Your task to perform on an android device: clear all cookies in the chrome app Image 0: 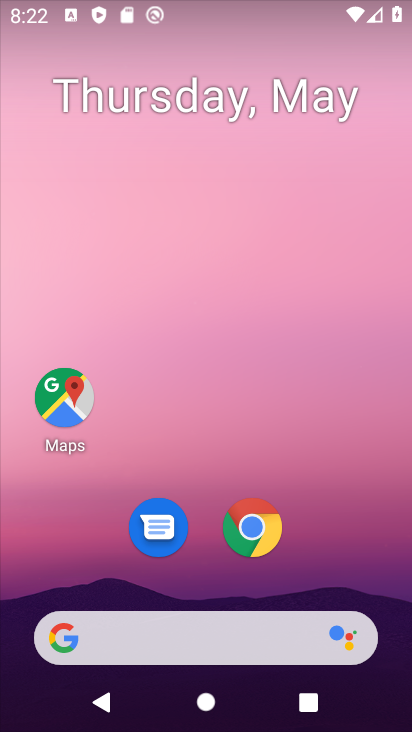
Step 0: press home button
Your task to perform on an android device: clear all cookies in the chrome app Image 1: 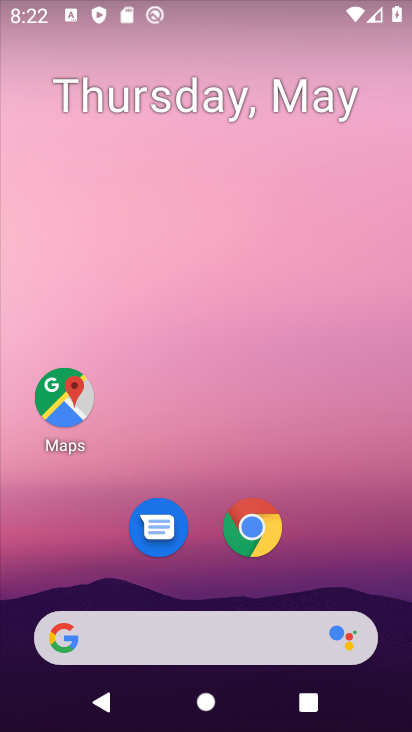
Step 1: click (250, 524)
Your task to perform on an android device: clear all cookies in the chrome app Image 2: 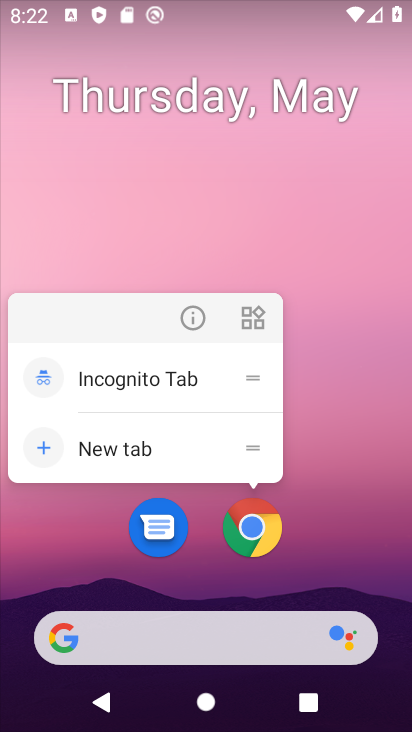
Step 2: click (248, 512)
Your task to perform on an android device: clear all cookies in the chrome app Image 3: 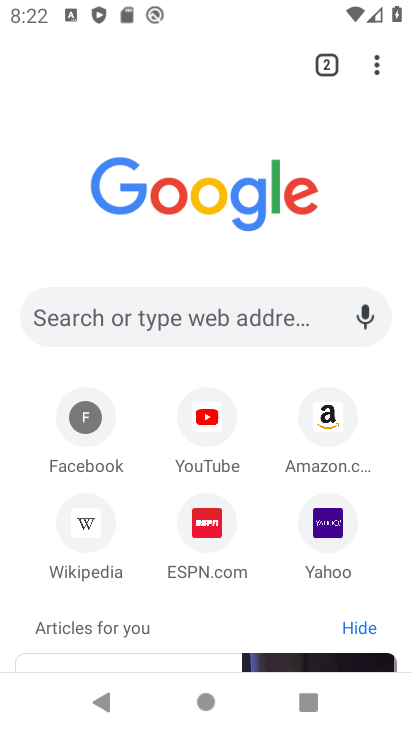
Step 3: click (379, 60)
Your task to perform on an android device: clear all cookies in the chrome app Image 4: 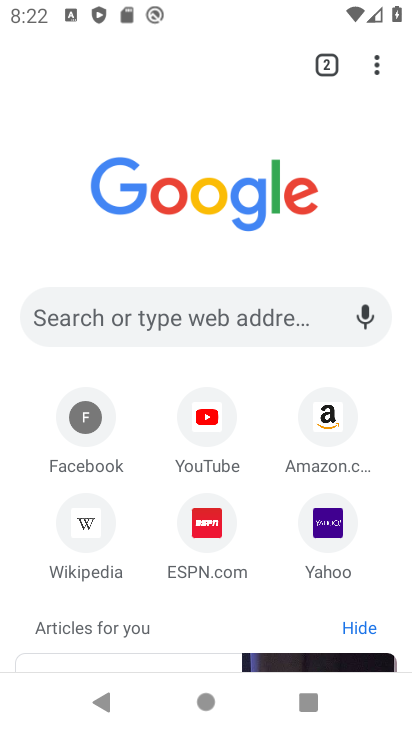
Step 4: click (380, 66)
Your task to perform on an android device: clear all cookies in the chrome app Image 5: 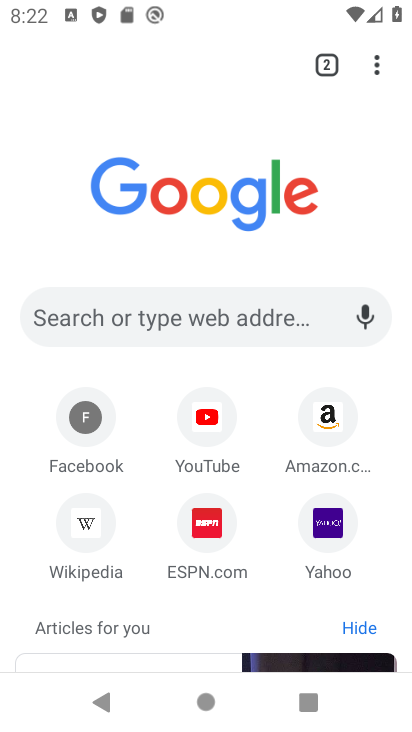
Step 5: click (380, 65)
Your task to perform on an android device: clear all cookies in the chrome app Image 6: 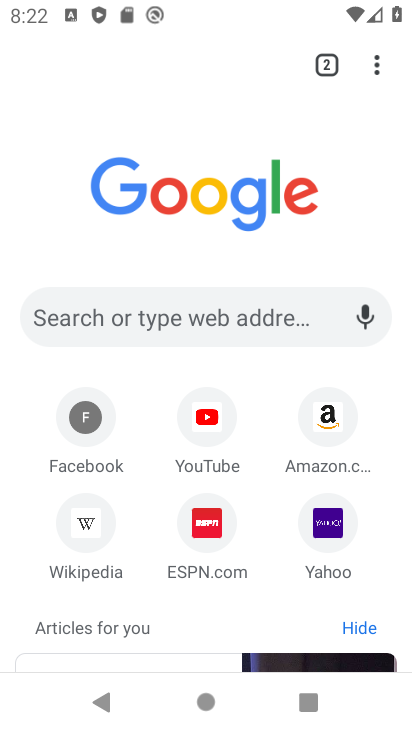
Step 6: click (374, 61)
Your task to perform on an android device: clear all cookies in the chrome app Image 7: 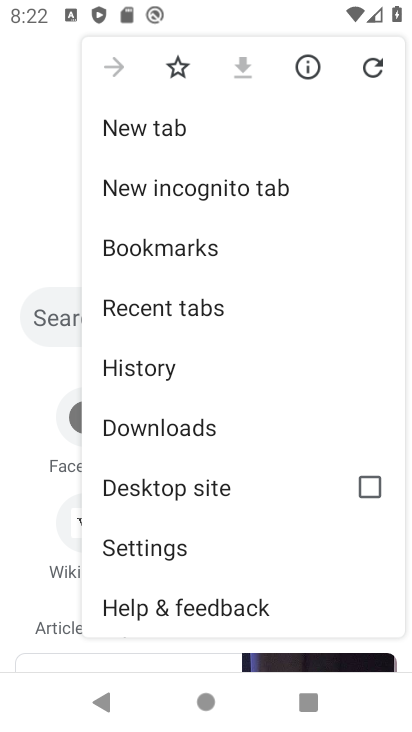
Step 7: click (144, 360)
Your task to perform on an android device: clear all cookies in the chrome app Image 8: 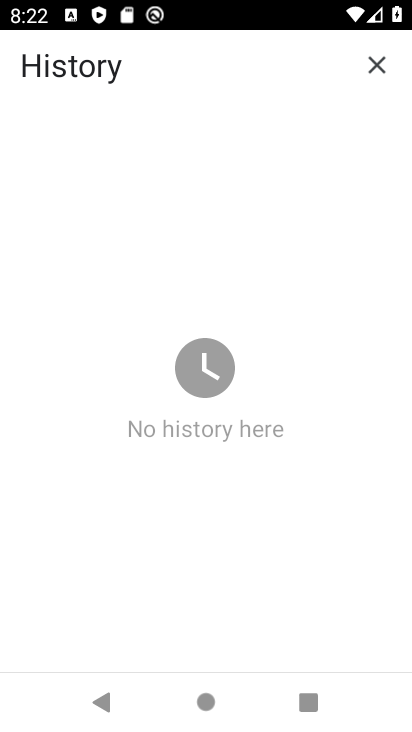
Step 8: task complete